Your task to perform on an android device: empty trash in google photos Image 0: 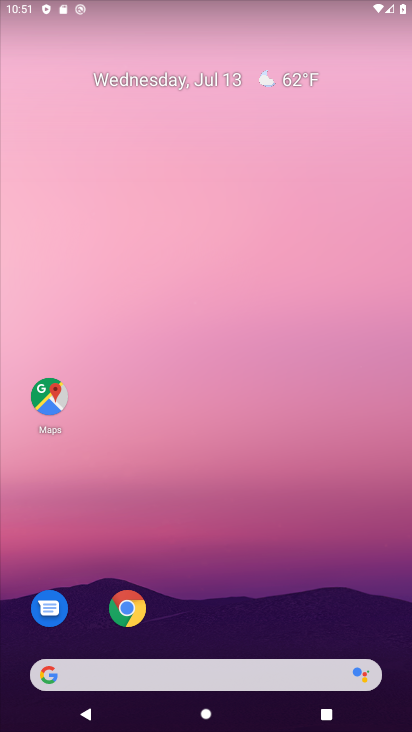
Step 0: drag from (226, 722) to (216, 225)
Your task to perform on an android device: empty trash in google photos Image 1: 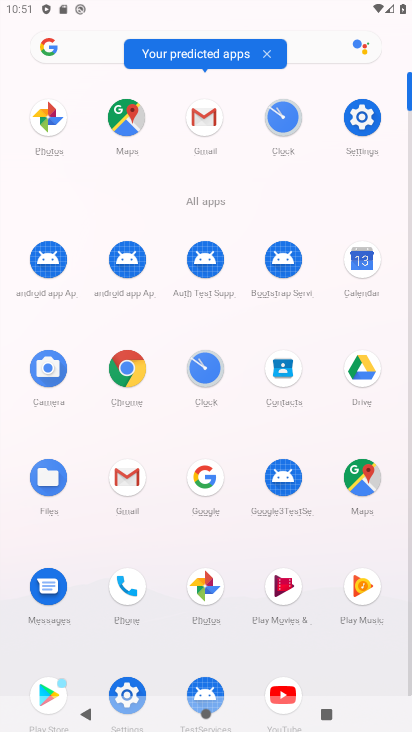
Step 1: click (206, 584)
Your task to perform on an android device: empty trash in google photos Image 2: 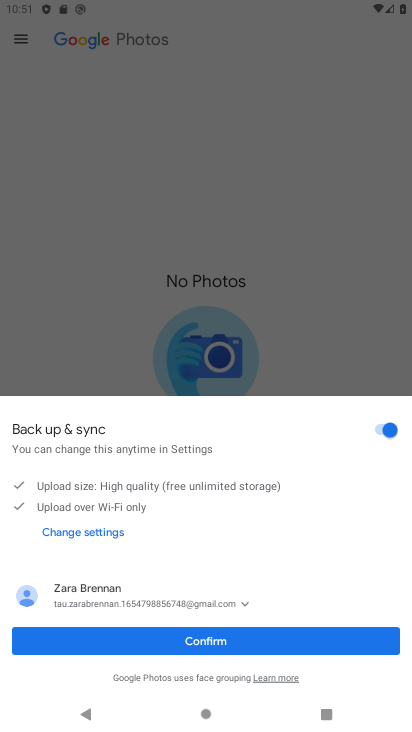
Step 2: click (215, 640)
Your task to perform on an android device: empty trash in google photos Image 3: 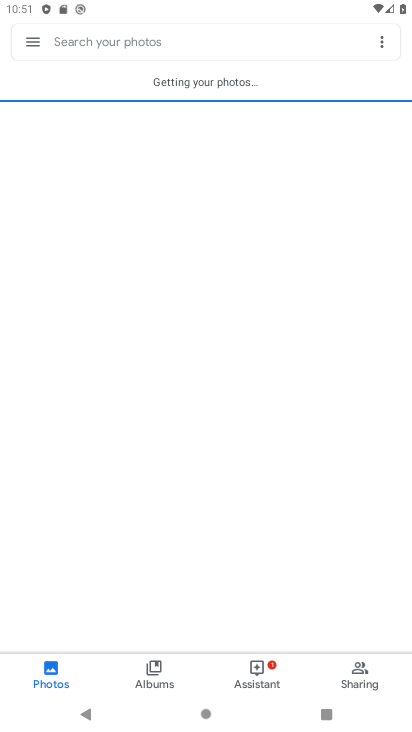
Step 3: click (31, 38)
Your task to perform on an android device: empty trash in google photos Image 4: 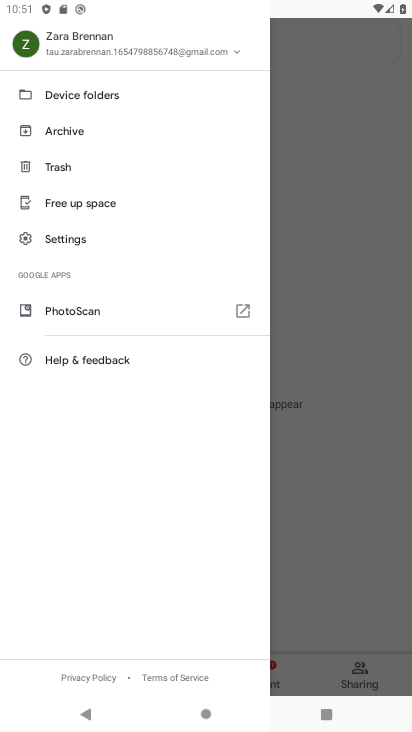
Step 4: click (55, 163)
Your task to perform on an android device: empty trash in google photos Image 5: 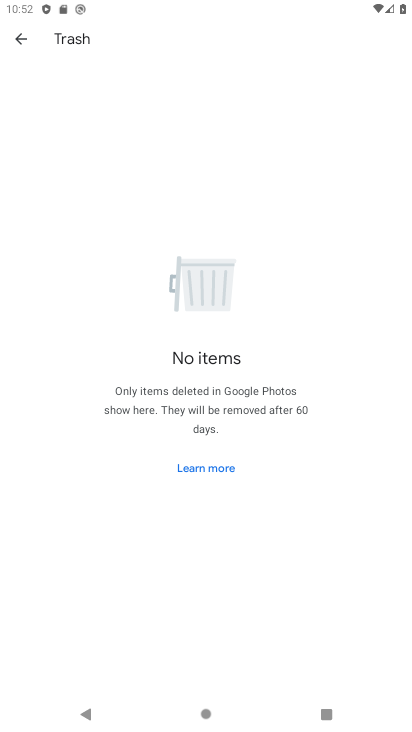
Step 5: task complete